Your task to perform on an android device: turn off translation in the chrome app Image 0: 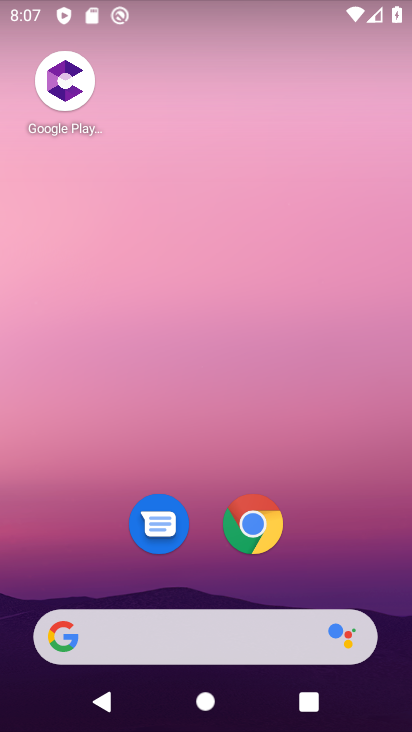
Step 0: click (269, 520)
Your task to perform on an android device: turn off translation in the chrome app Image 1: 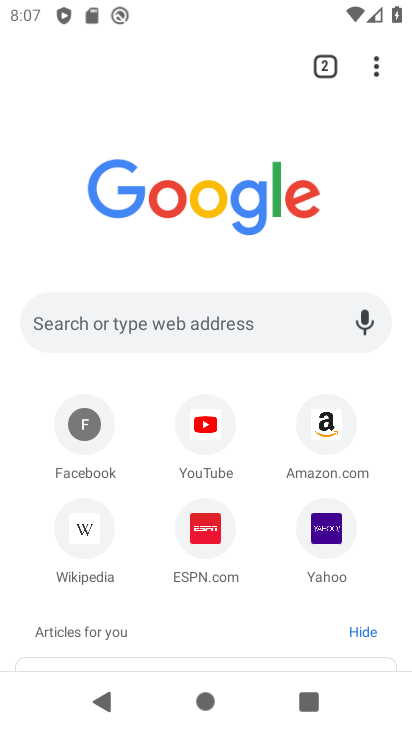
Step 1: click (373, 65)
Your task to perform on an android device: turn off translation in the chrome app Image 2: 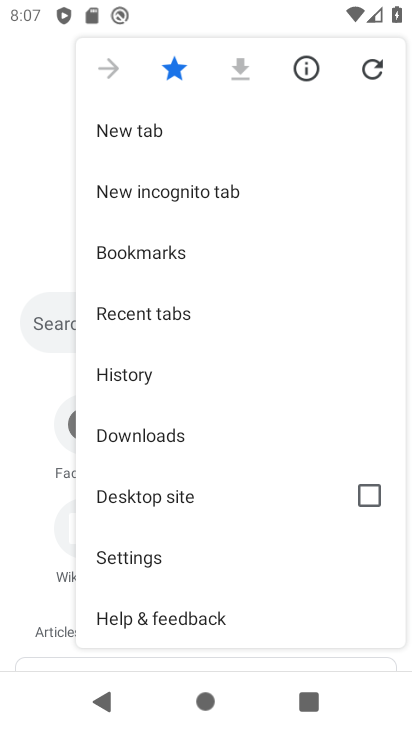
Step 2: click (200, 551)
Your task to perform on an android device: turn off translation in the chrome app Image 3: 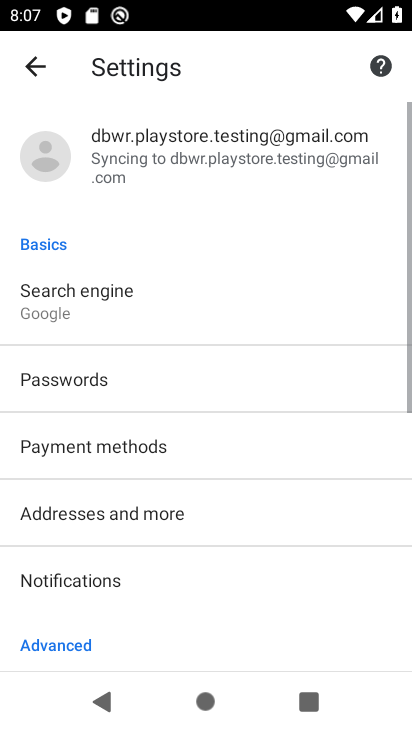
Step 3: drag from (200, 549) to (232, 234)
Your task to perform on an android device: turn off translation in the chrome app Image 4: 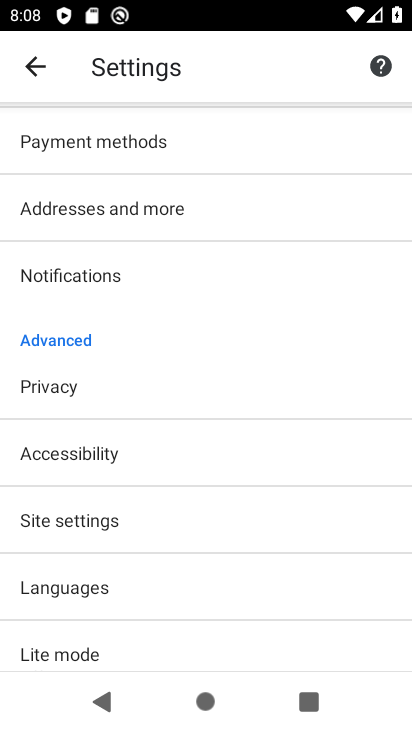
Step 4: click (195, 592)
Your task to perform on an android device: turn off translation in the chrome app Image 5: 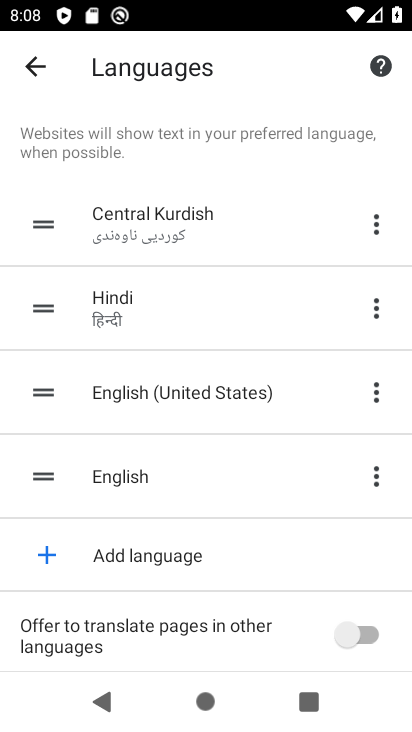
Step 5: task complete